Your task to perform on an android device: Open Google Maps Image 0: 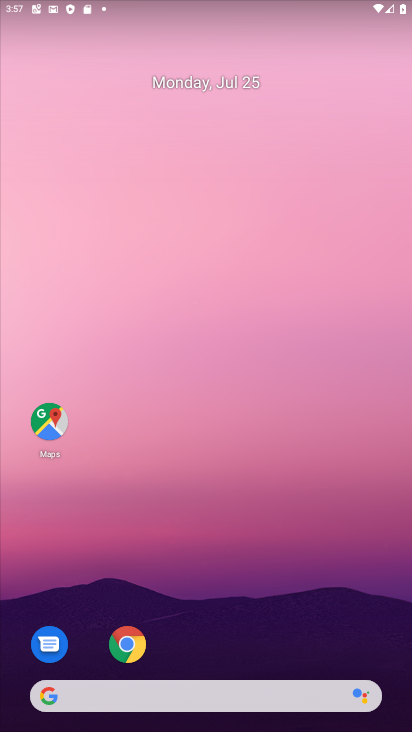
Step 0: press home button
Your task to perform on an android device: Open Google Maps Image 1: 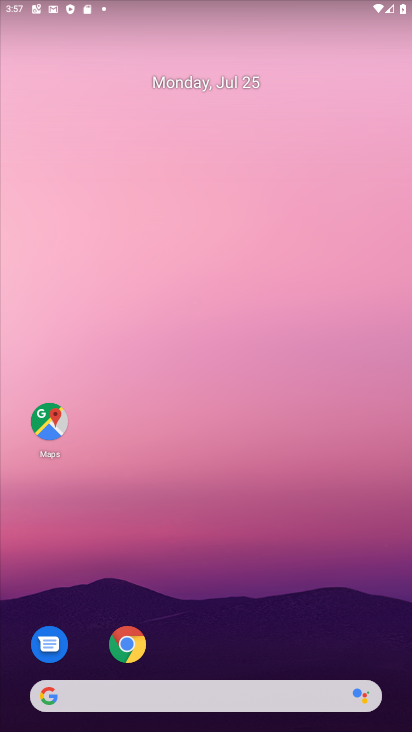
Step 1: click (49, 420)
Your task to perform on an android device: Open Google Maps Image 2: 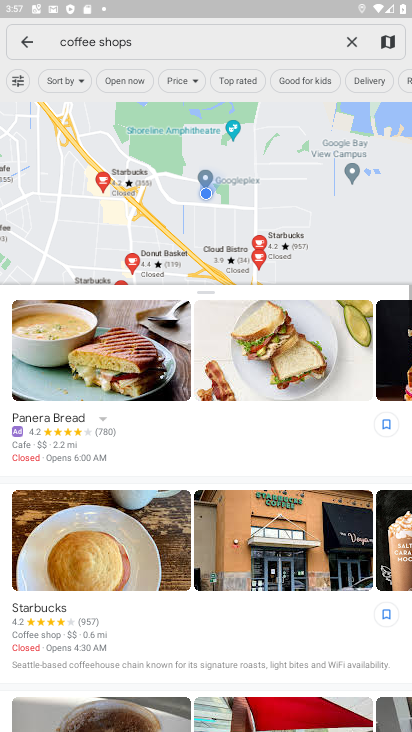
Step 2: click (29, 42)
Your task to perform on an android device: Open Google Maps Image 3: 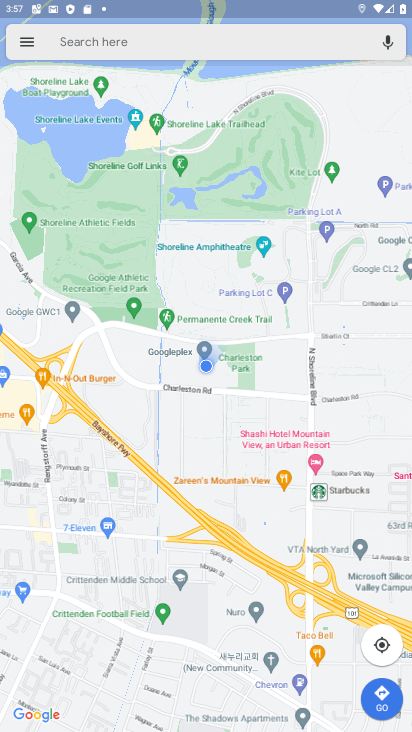
Step 3: task complete